Your task to perform on an android device: Play the last video I watched on Youtube Image 0: 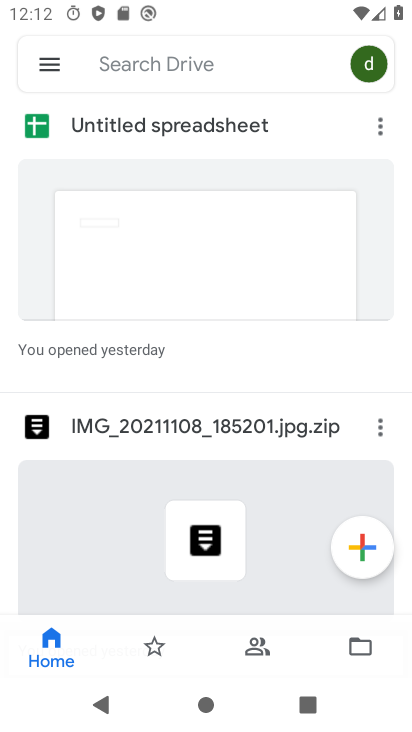
Step 0: press home button
Your task to perform on an android device: Play the last video I watched on Youtube Image 1: 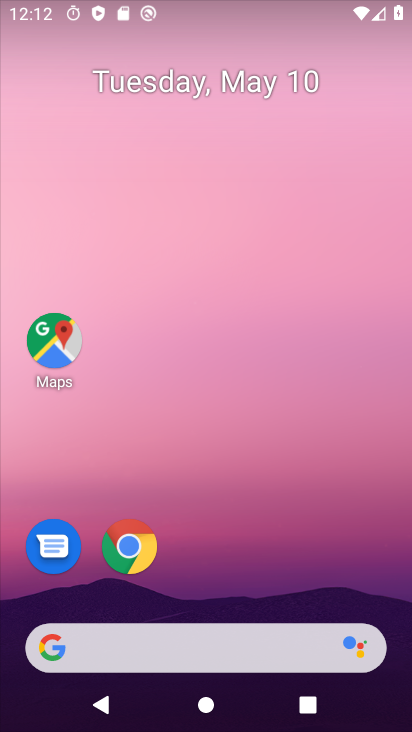
Step 1: drag from (312, 544) to (301, 98)
Your task to perform on an android device: Play the last video I watched on Youtube Image 2: 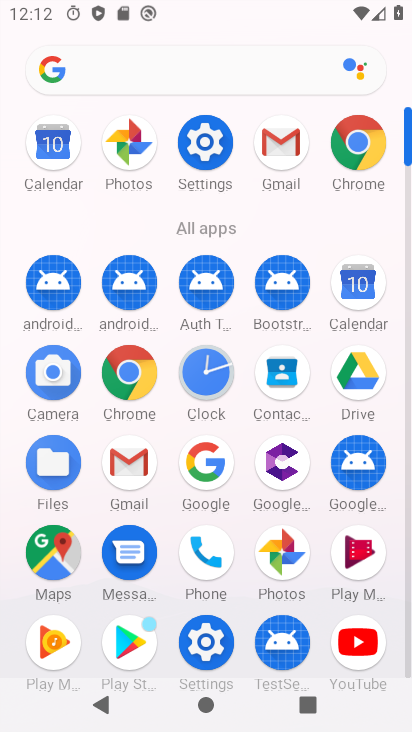
Step 2: click (369, 647)
Your task to perform on an android device: Play the last video I watched on Youtube Image 3: 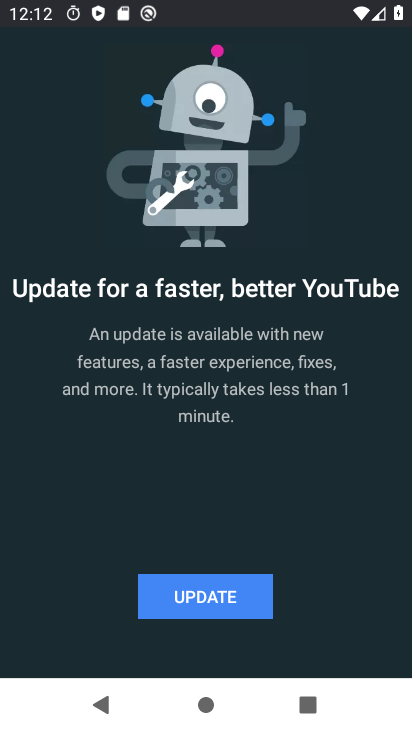
Step 3: click (194, 597)
Your task to perform on an android device: Play the last video I watched on Youtube Image 4: 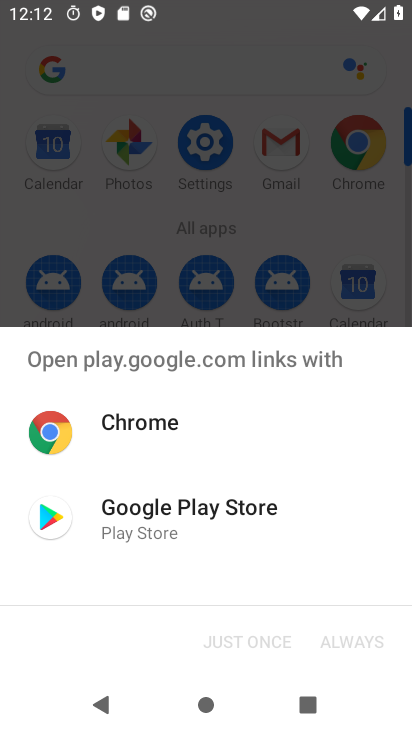
Step 4: click (76, 498)
Your task to perform on an android device: Play the last video I watched on Youtube Image 5: 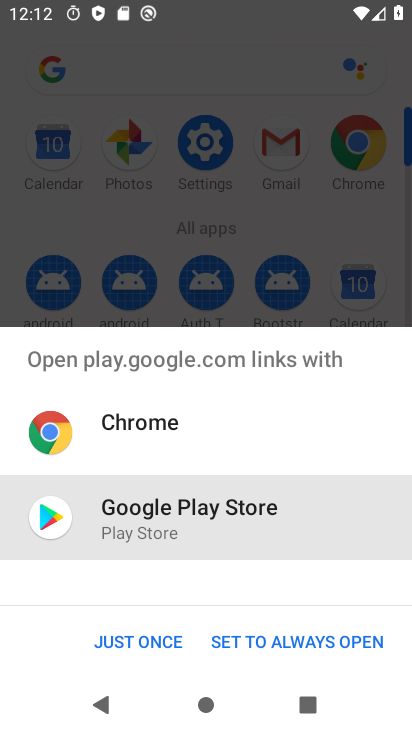
Step 5: click (165, 654)
Your task to perform on an android device: Play the last video I watched on Youtube Image 6: 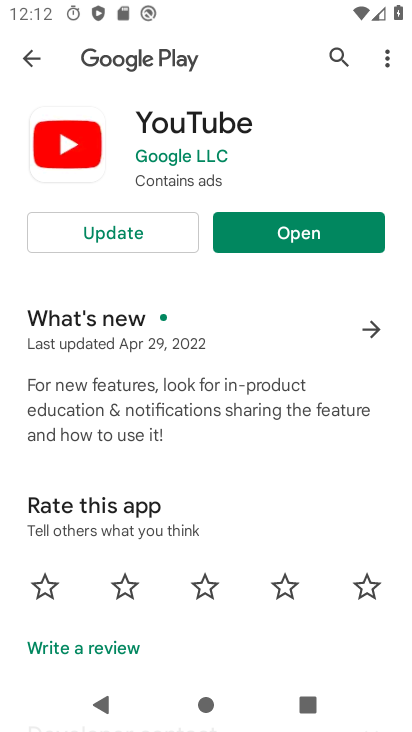
Step 6: click (158, 238)
Your task to perform on an android device: Play the last video I watched on Youtube Image 7: 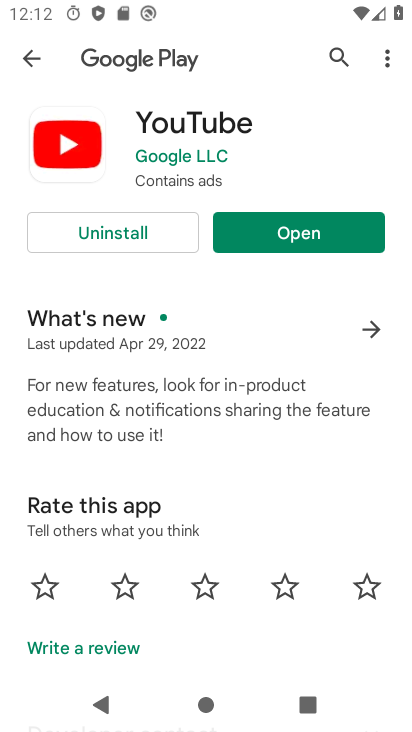
Step 7: click (325, 234)
Your task to perform on an android device: Play the last video I watched on Youtube Image 8: 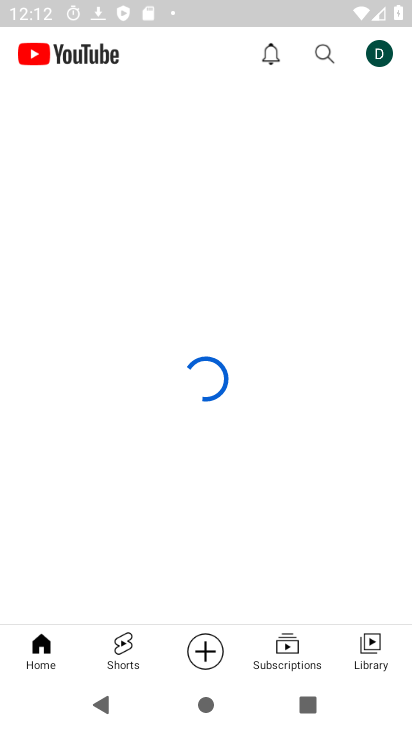
Step 8: click (372, 652)
Your task to perform on an android device: Play the last video I watched on Youtube Image 9: 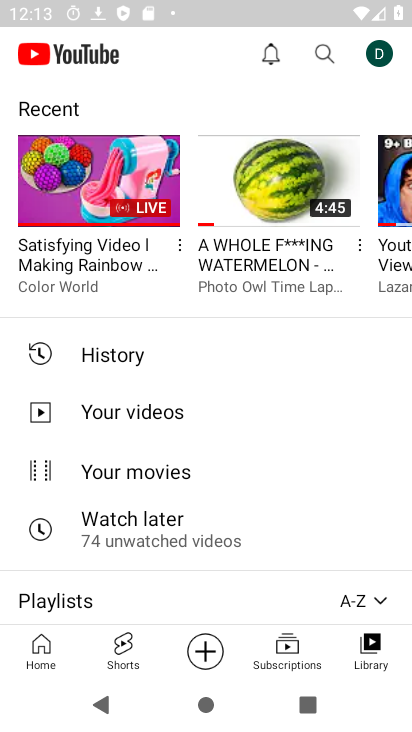
Step 9: click (46, 214)
Your task to perform on an android device: Play the last video I watched on Youtube Image 10: 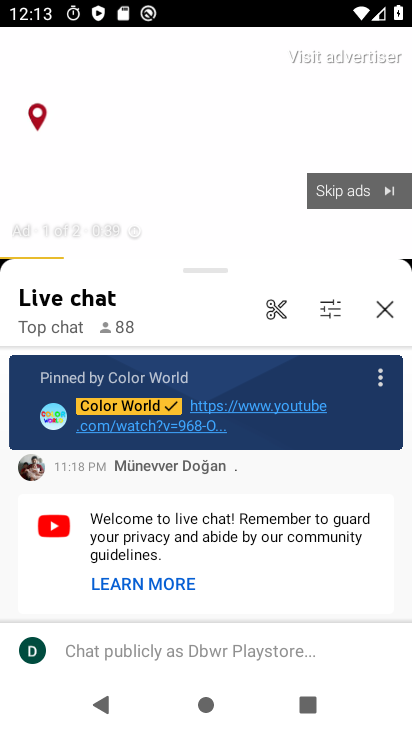
Step 10: click (381, 200)
Your task to perform on an android device: Play the last video I watched on Youtube Image 11: 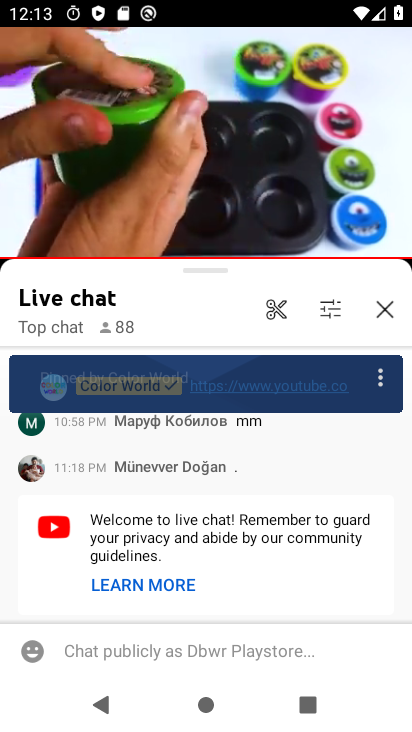
Step 11: task complete